Your task to perform on an android device: change the clock display to digital Image 0: 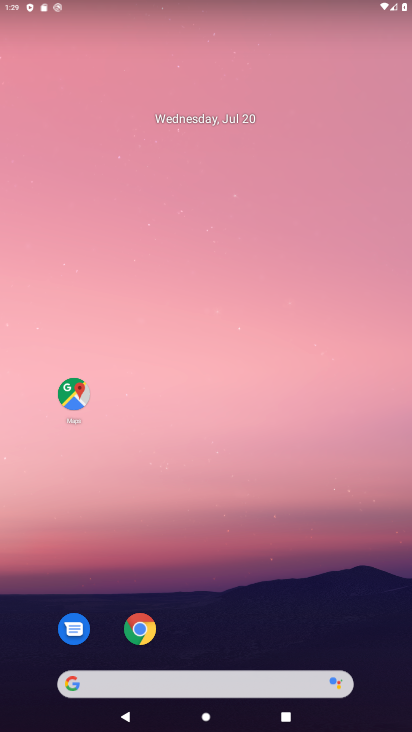
Step 0: drag from (239, 666) to (273, 165)
Your task to perform on an android device: change the clock display to digital Image 1: 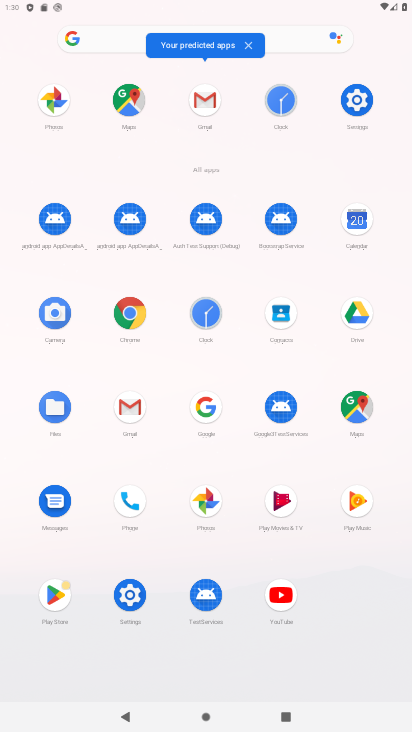
Step 1: click (208, 316)
Your task to perform on an android device: change the clock display to digital Image 2: 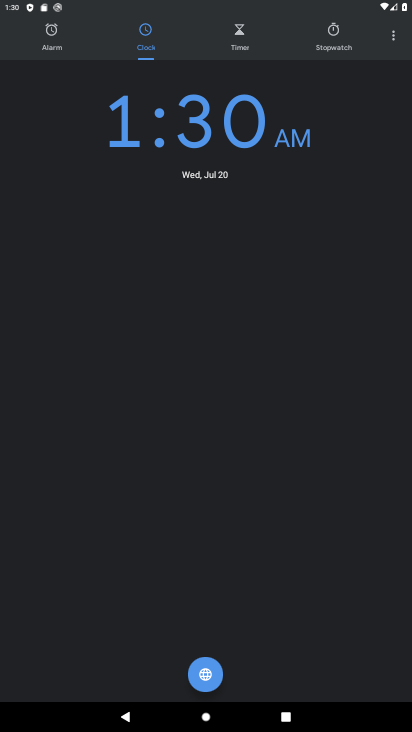
Step 2: click (394, 36)
Your task to perform on an android device: change the clock display to digital Image 3: 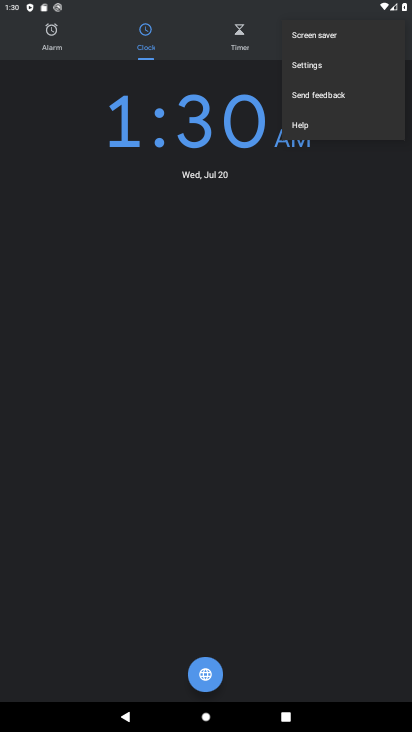
Step 3: click (352, 66)
Your task to perform on an android device: change the clock display to digital Image 4: 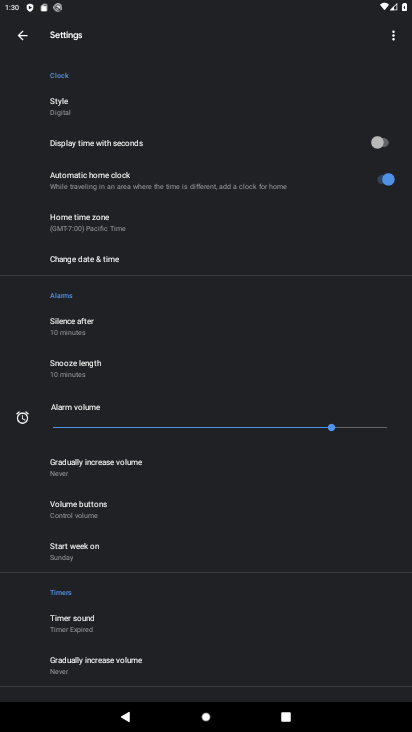
Step 4: click (143, 113)
Your task to perform on an android device: change the clock display to digital Image 5: 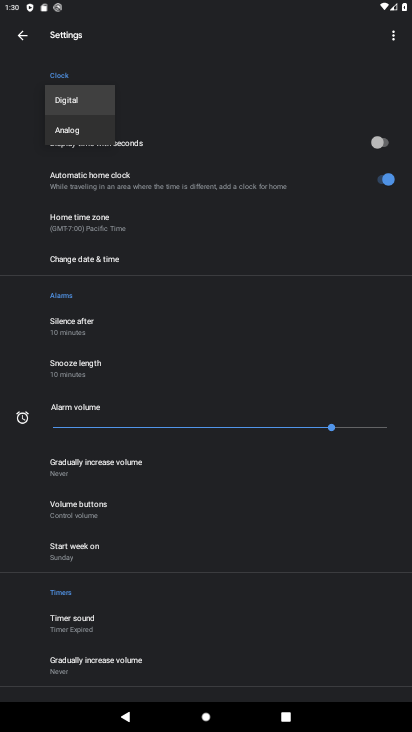
Step 5: task complete